Your task to perform on an android device: turn on the 24-hour format for clock Image 0: 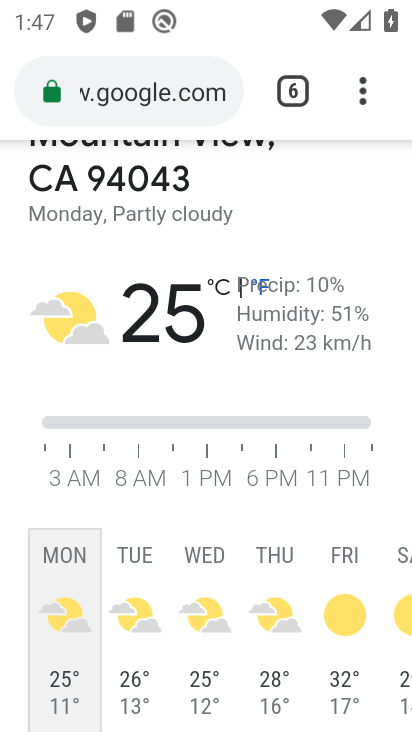
Step 0: press home button
Your task to perform on an android device: turn on the 24-hour format for clock Image 1: 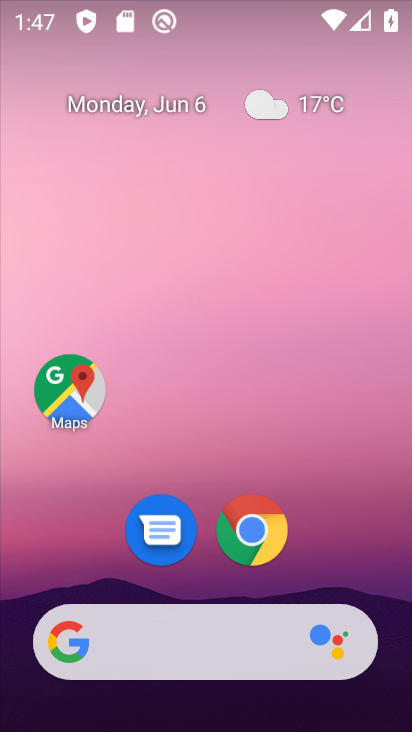
Step 1: drag from (311, 544) to (316, 149)
Your task to perform on an android device: turn on the 24-hour format for clock Image 2: 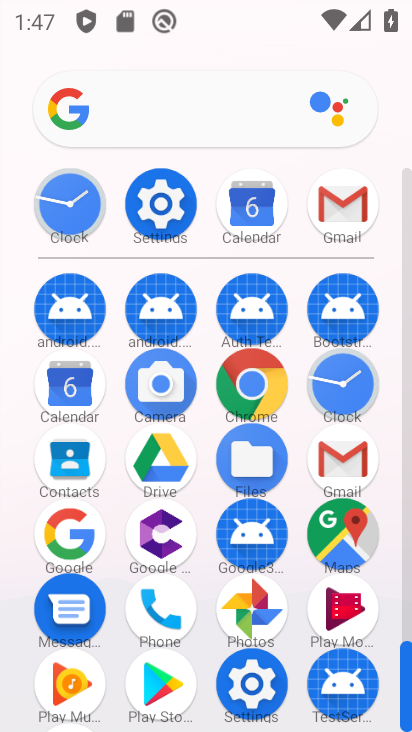
Step 2: click (336, 370)
Your task to perform on an android device: turn on the 24-hour format for clock Image 3: 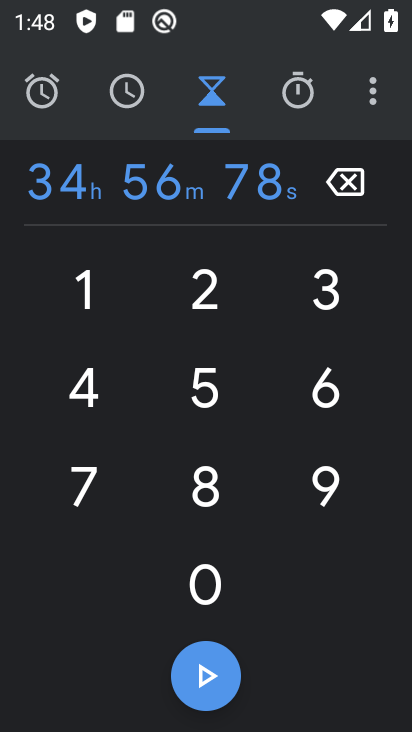
Step 3: click (363, 93)
Your task to perform on an android device: turn on the 24-hour format for clock Image 4: 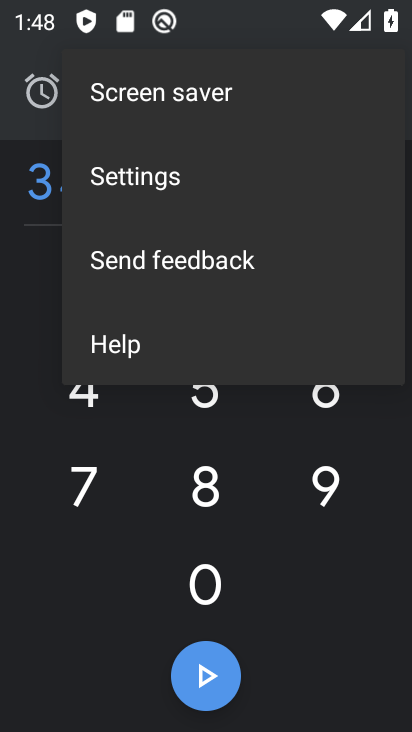
Step 4: click (138, 192)
Your task to perform on an android device: turn on the 24-hour format for clock Image 5: 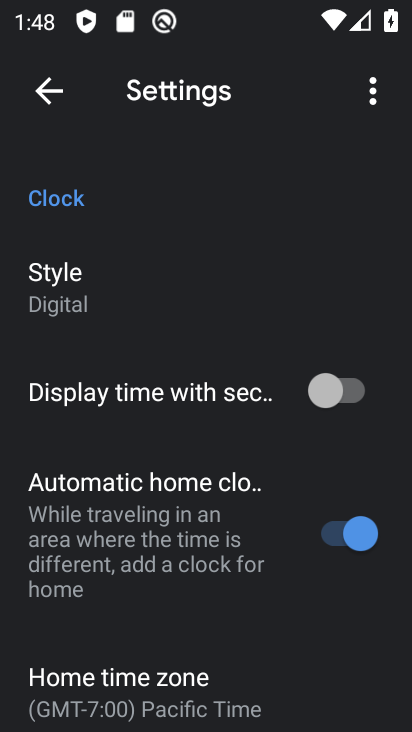
Step 5: drag from (178, 574) to (220, 302)
Your task to perform on an android device: turn on the 24-hour format for clock Image 6: 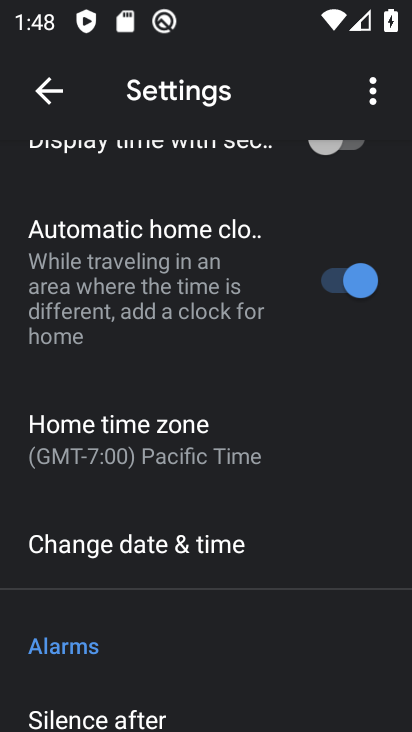
Step 6: click (204, 544)
Your task to perform on an android device: turn on the 24-hour format for clock Image 7: 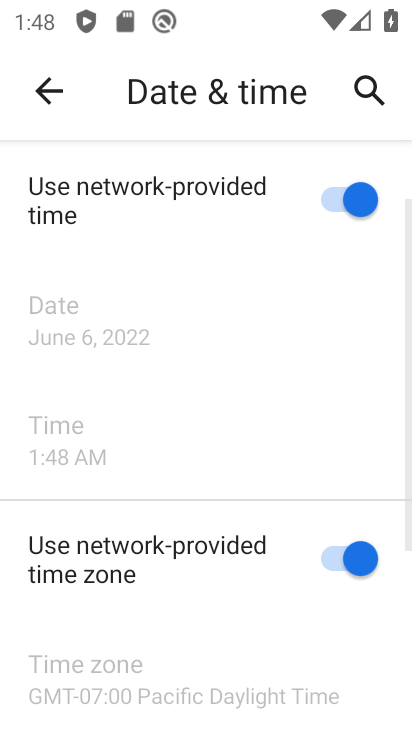
Step 7: drag from (212, 591) to (251, 354)
Your task to perform on an android device: turn on the 24-hour format for clock Image 8: 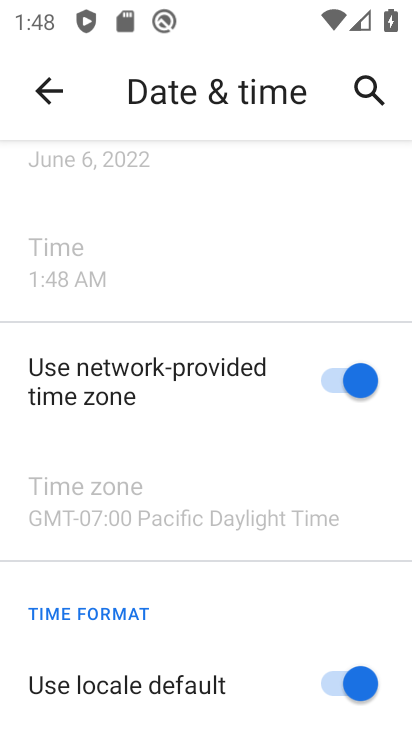
Step 8: drag from (249, 645) to (259, 279)
Your task to perform on an android device: turn on the 24-hour format for clock Image 9: 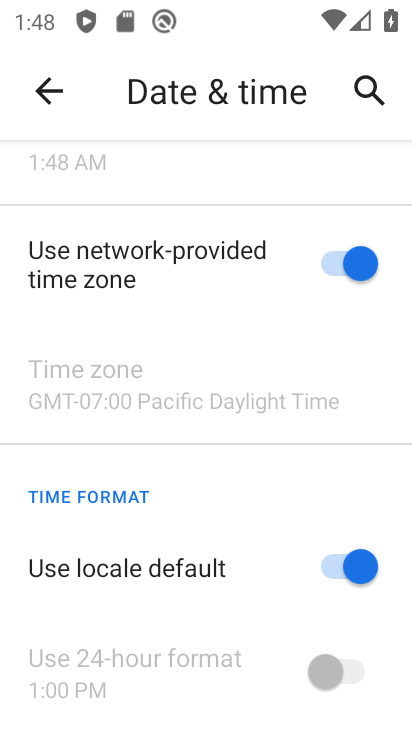
Step 9: click (331, 563)
Your task to perform on an android device: turn on the 24-hour format for clock Image 10: 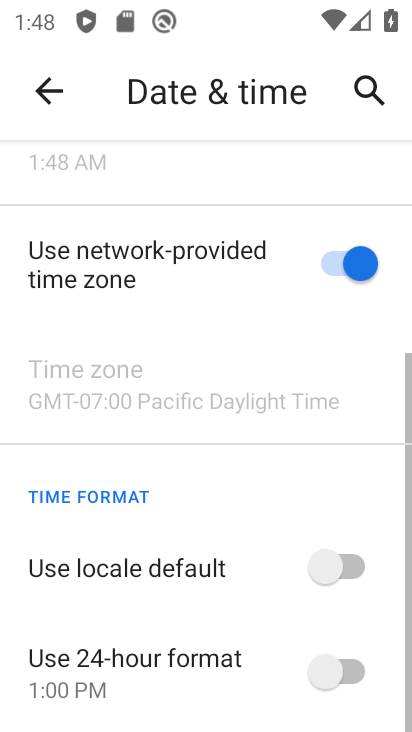
Step 10: click (341, 673)
Your task to perform on an android device: turn on the 24-hour format for clock Image 11: 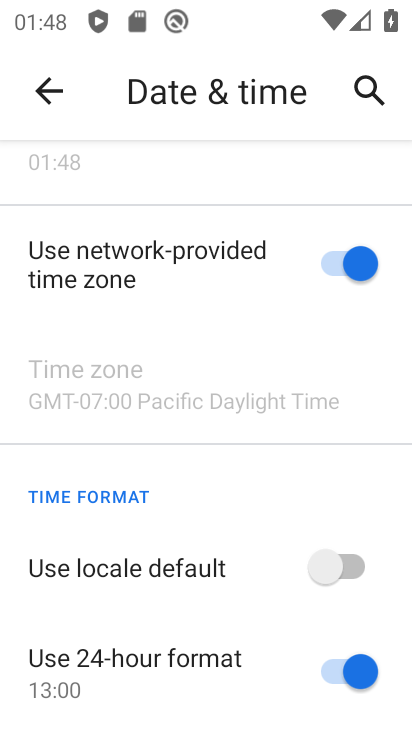
Step 11: task complete